Your task to perform on an android device: Open Reddit.com Image 0: 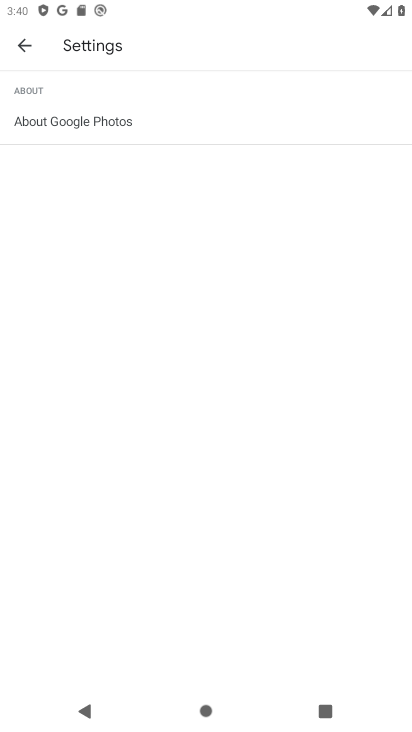
Step 0: press home button
Your task to perform on an android device: Open Reddit.com Image 1: 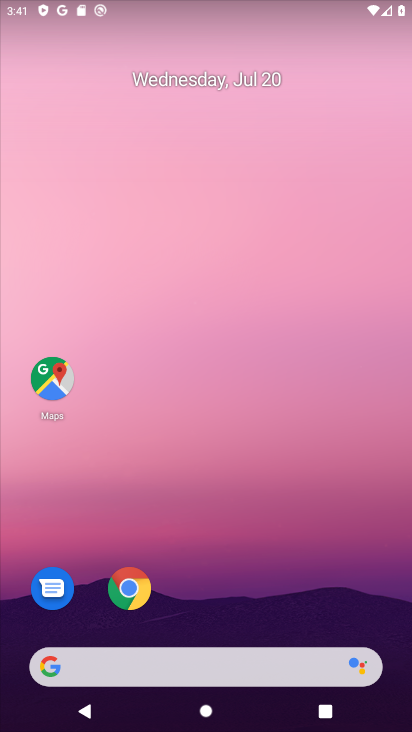
Step 1: click (129, 662)
Your task to perform on an android device: Open Reddit.com Image 2: 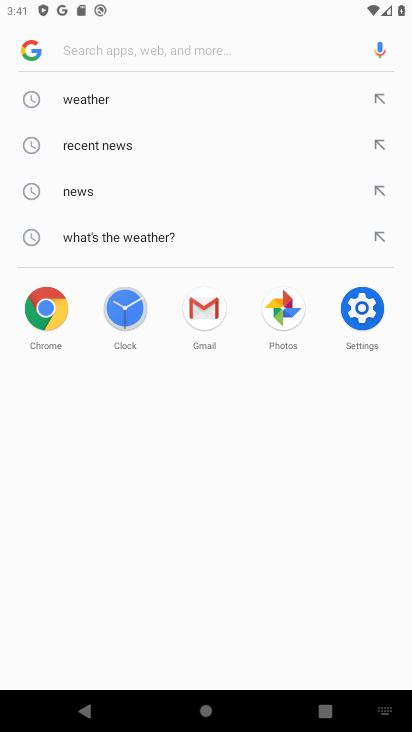
Step 2: type "reddit"
Your task to perform on an android device: Open Reddit.com Image 3: 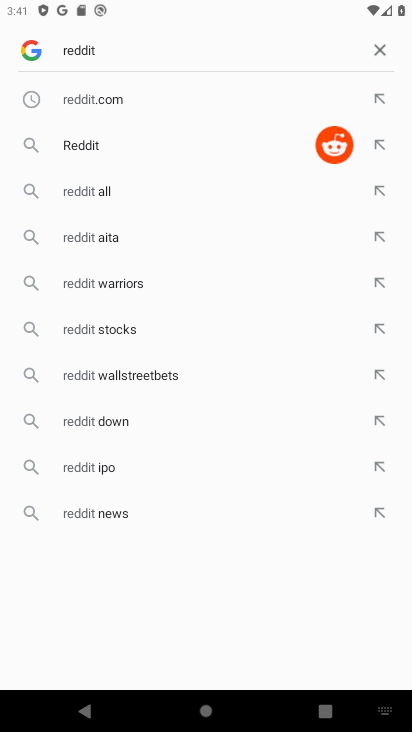
Step 3: click (287, 147)
Your task to perform on an android device: Open Reddit.com Image 4: 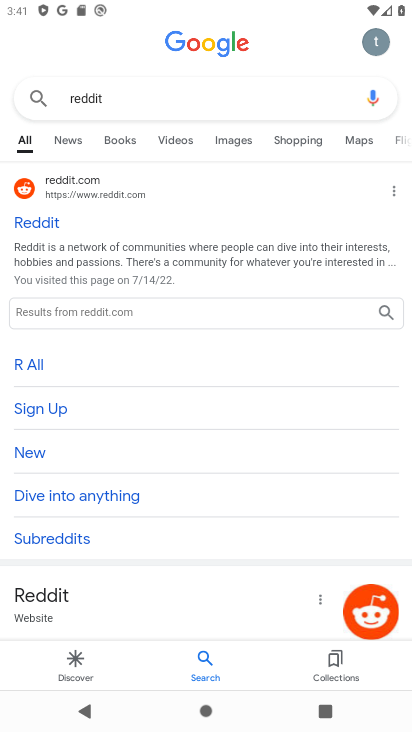
Step 4: click (31, 225)
Your task to perform on an android device: Open Reddit.com Image 5: 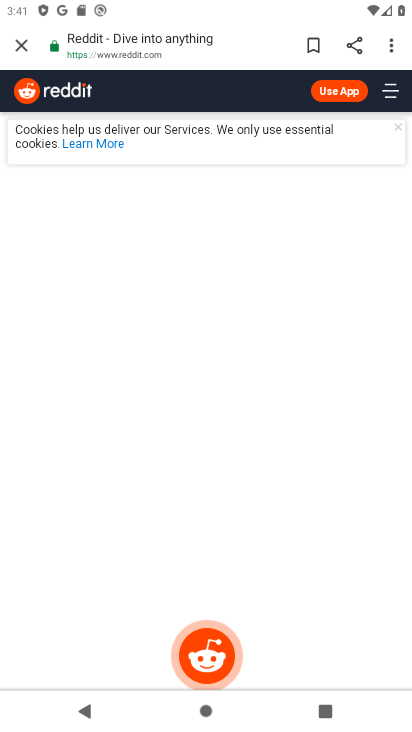
Step 5: task complete